Your task to perform on an android device: Go to Google Image 0: 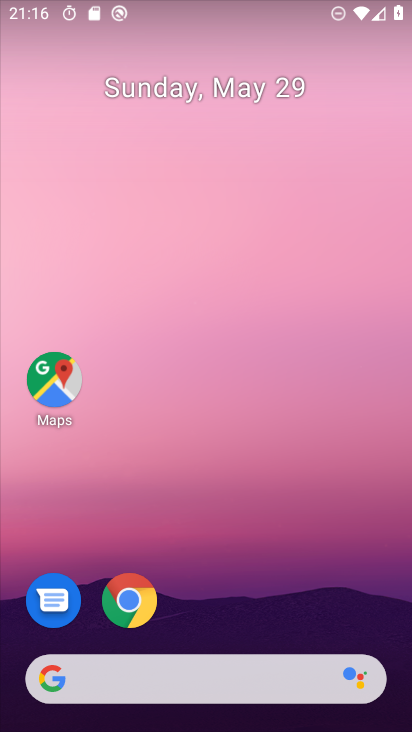
Step 0: drag from (386, 639) to (380, 173)
Your task to perform on an android device: Go to Google Image 1: 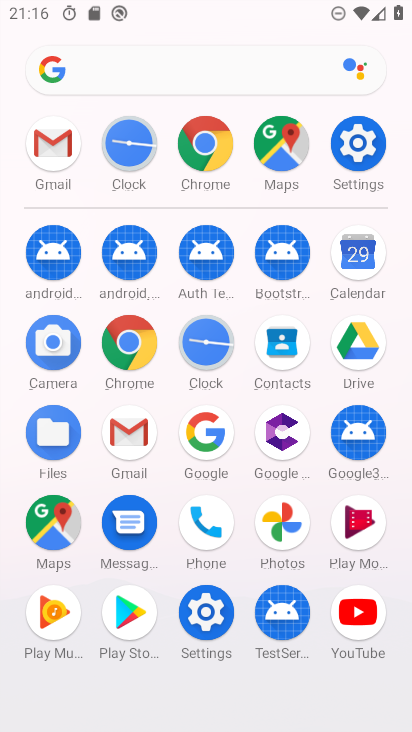
Step 1: click (215, 461)
Your task to perform on an android device: Go to Google Image 2: 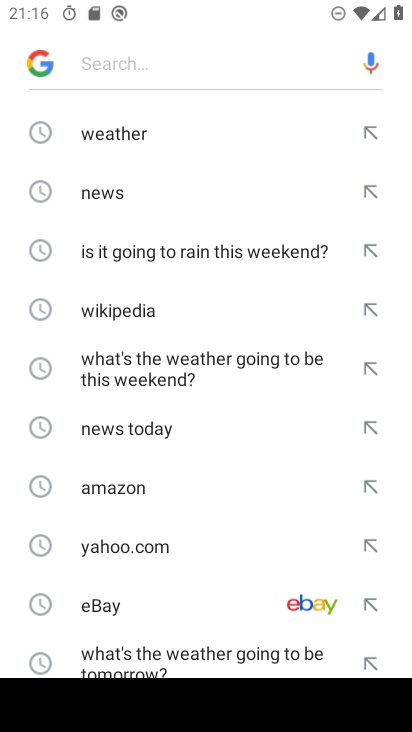
Step 2: task complete